Your task to perform on an android device: Go to wifi settings Image 0: 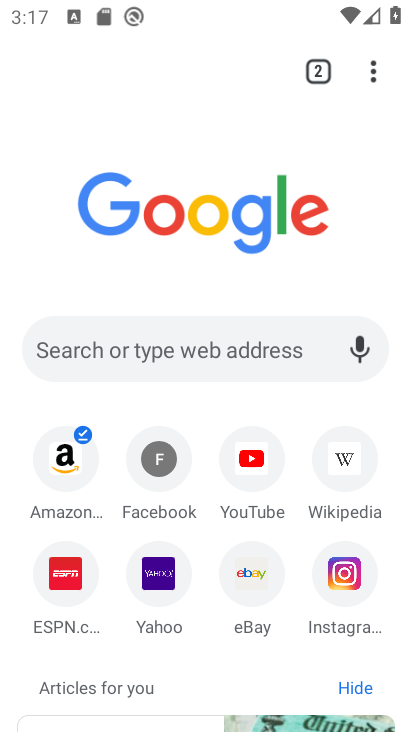
Step 0: press home button
Your task to perform on an android device: Go to wifi settings Image 1: 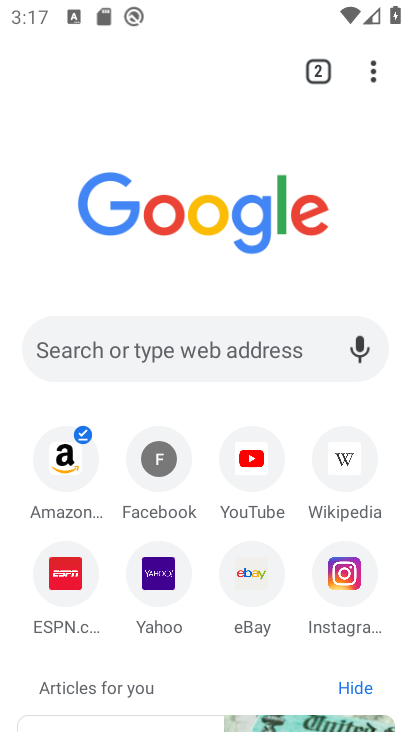
Step 1: press home button
Your task to perform on an android device: Go to wifi settings Image 2: 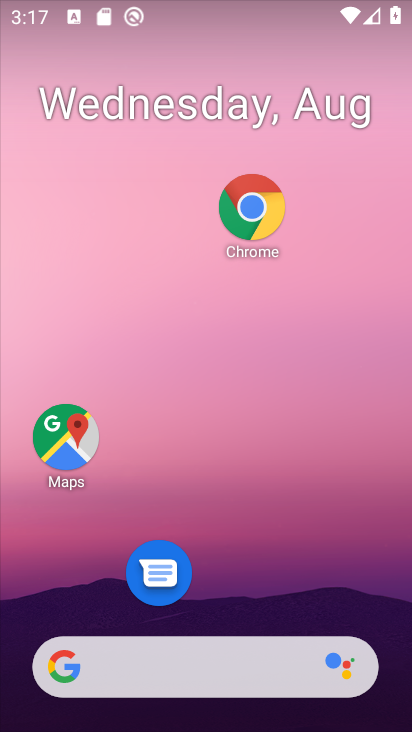
Step 2: drag from (261, 563) to (257, 5)
Your task to perform on an android device: Go to wifi settings Image 3: 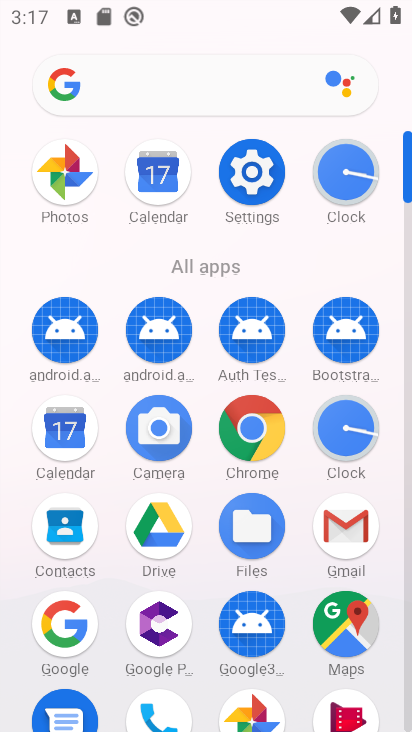
Step 3: click (252, 178)
Your task to perform on an android device: Go to wifi settings Image 4: 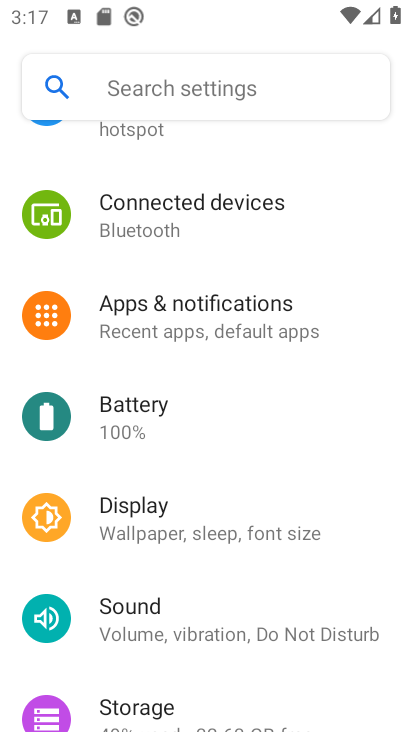
Step 4: drag from (219, 380) to (218, 583)
Your task to perform on an android device: Go to wifi settings Image 5: 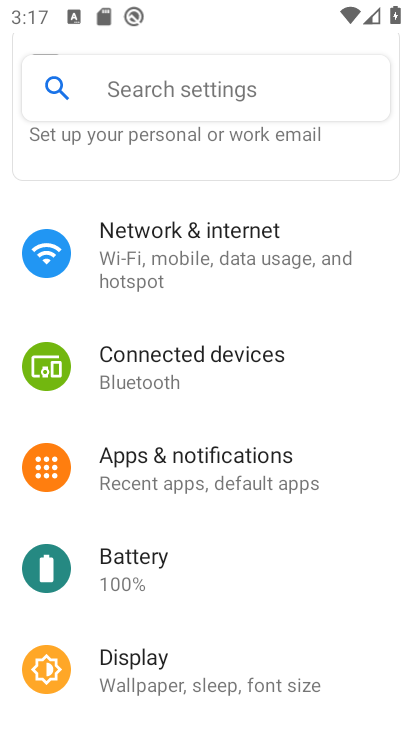
Step 5: click (265, 244)
Your task to perform on an android device: Go to wifi settings Image 6: 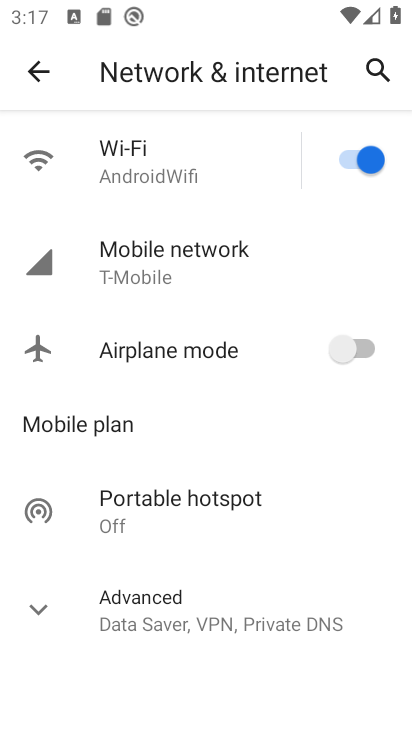
Step 6: click (174, 165)
Your task to perform on an android device: Go to wifi settings Image 7: 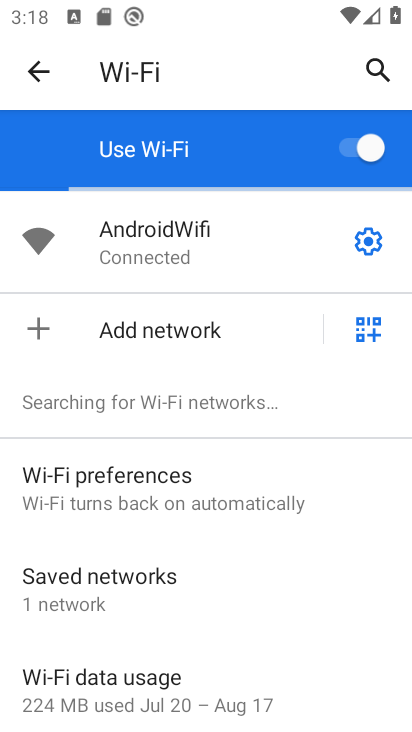
Step 7: task complete